Your task to perform on an android device: Go to Android settings Image 0: 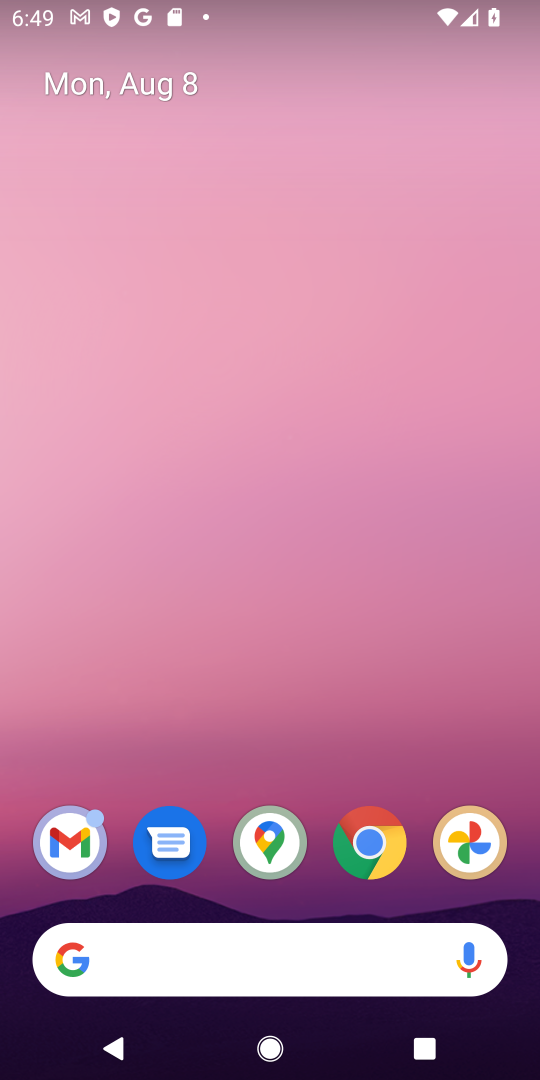
Step 0: drag from (303, 885) to (264, 24)
Your task to perform on an android device: Go to Android settings Image 1: 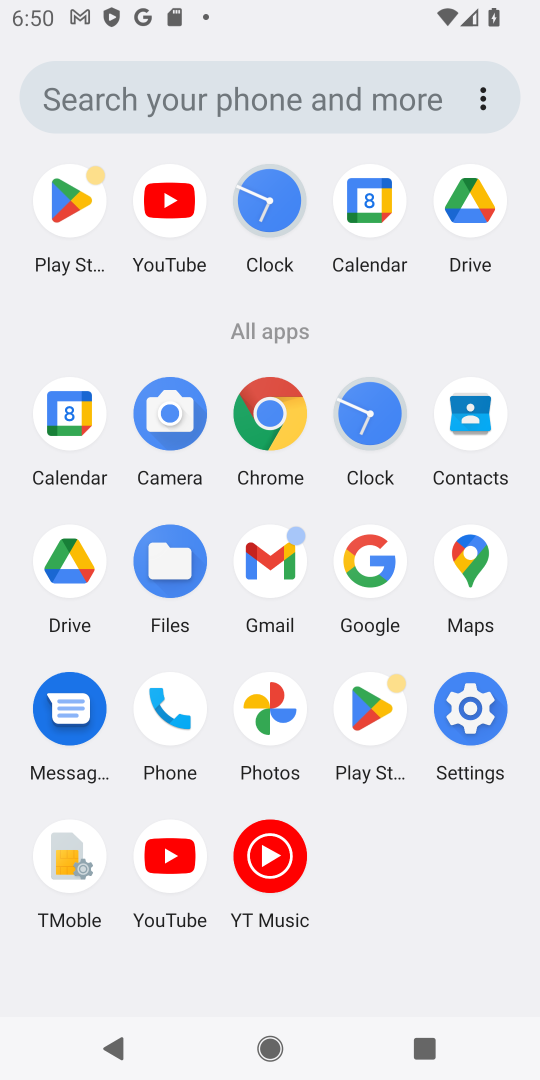
Step 1: click (472, 694)
Your task to perform on an android device: Go to Android settings Image 2: 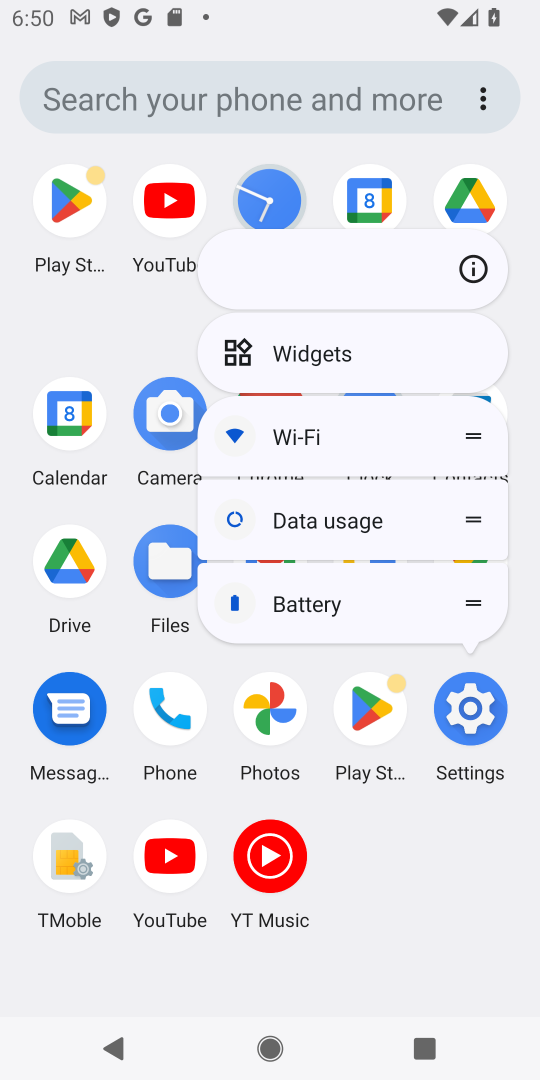
Step 2: click (460, 711)
Your task to perform on an android device: Go to Android settings Image 3: 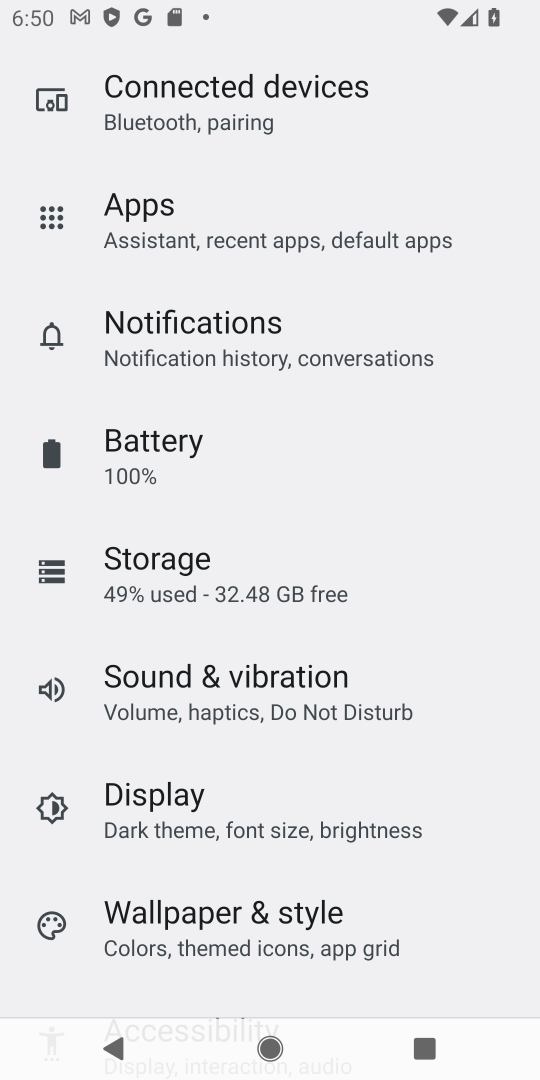
Step 3: drag from (350, 984) to (322, 170)
Your task to perform on an android device: Go to Android settings Image 4: 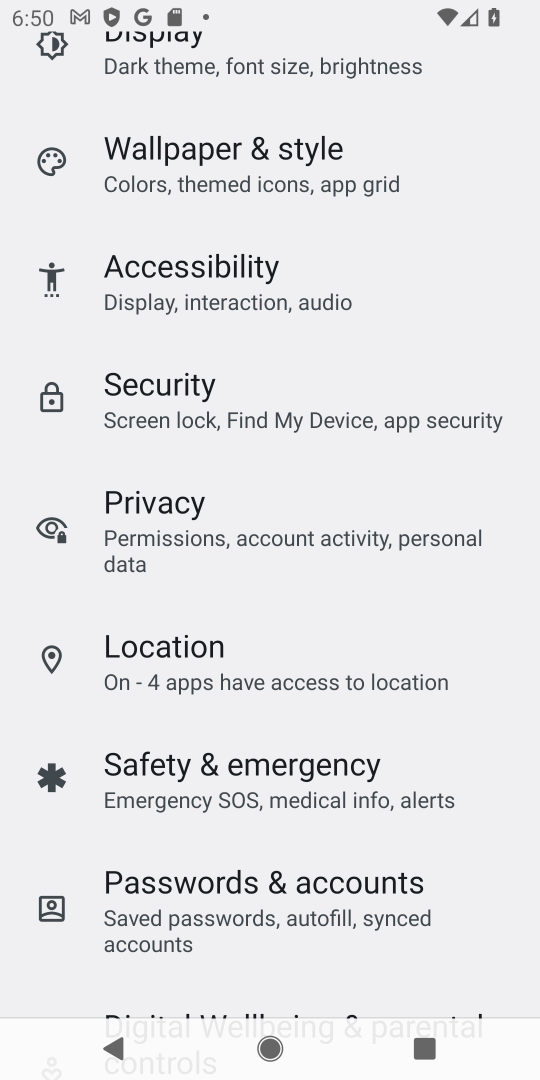
Step 4: drag from (312, 948) to (261, 99)
Your task to perform on an android device: Go to Android settings Image 5: 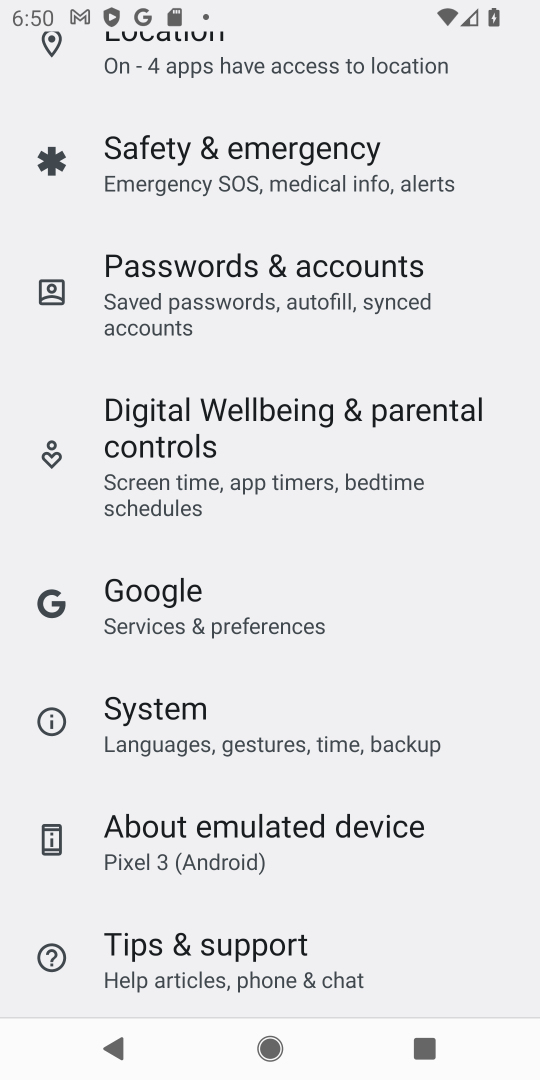
Step 5: drag from (325, 960) to (257, 440)
Your task to perform on an android device: Go to Android settings Image 6: 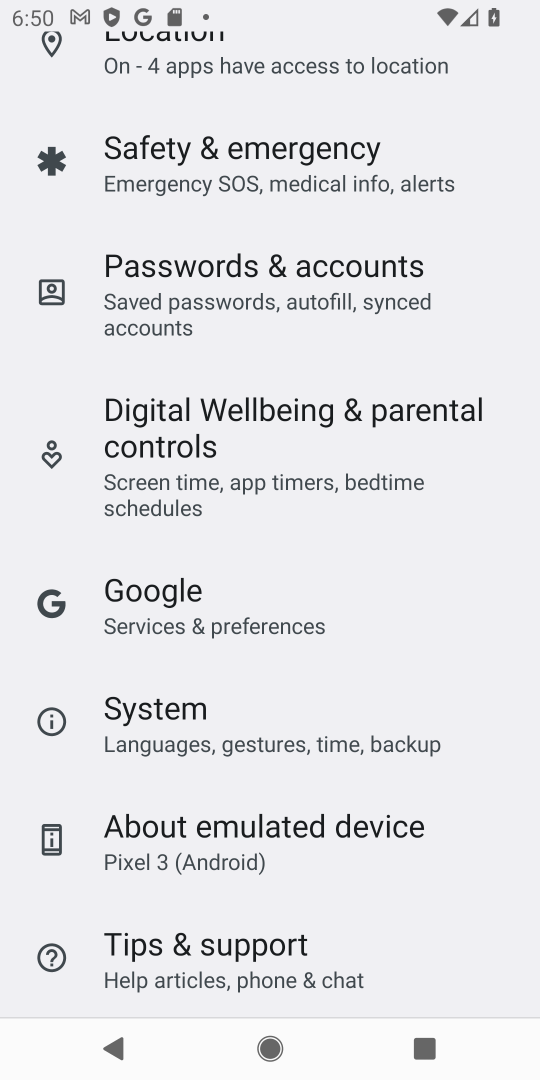
Step 6: click (211, 836)
Your task to perform on an android device: Go to Android settings Image 7: 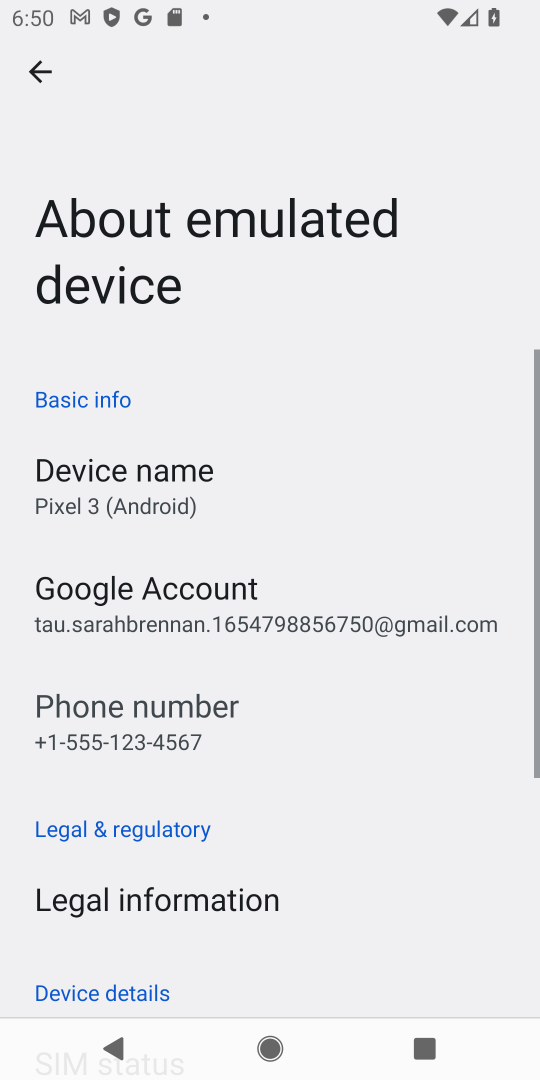
Step 7: drag from (327, 973) to (311, 216)
Your task to perform on an android device: Go to Android settings Image 8: 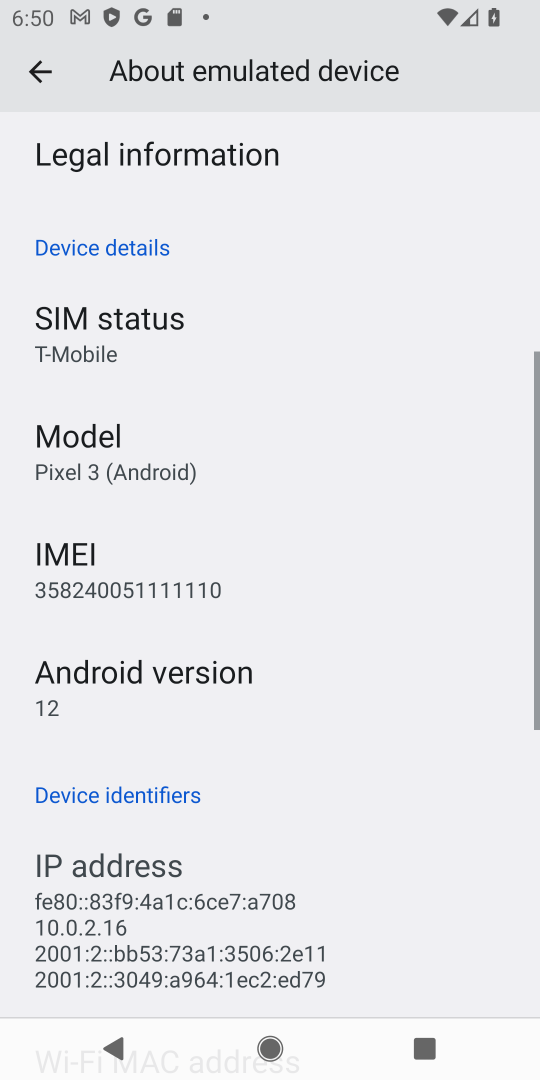
Step 8: click (116, 697)
Your task to perform on an android device: Go to Android settings Image 9: 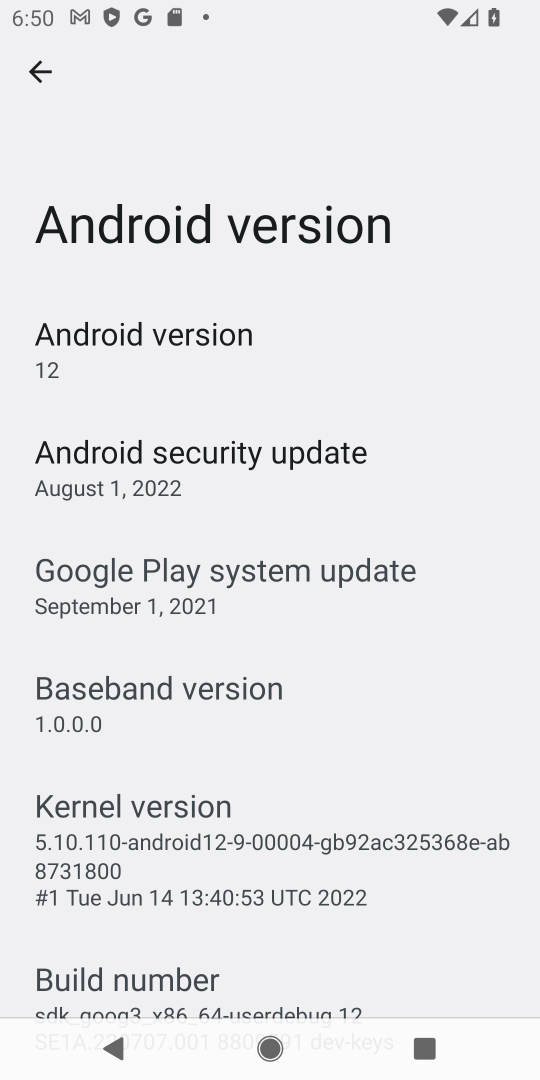
Step 9: task complete